Your task to perform on an android device: Go to Google Image 0: 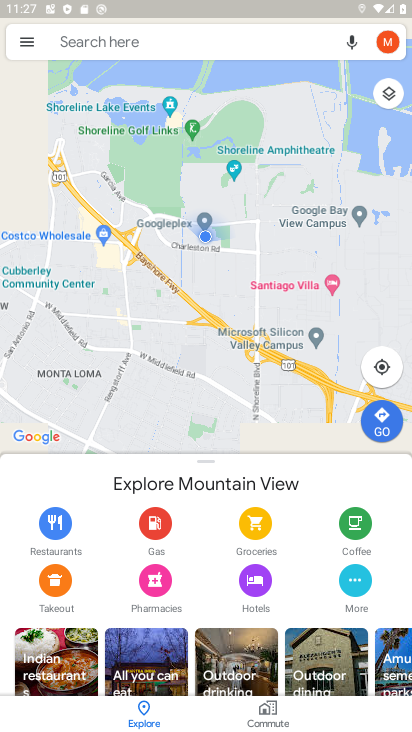
Step 0: press home button
Your task to perform on an android device: Go to Google Image 1: 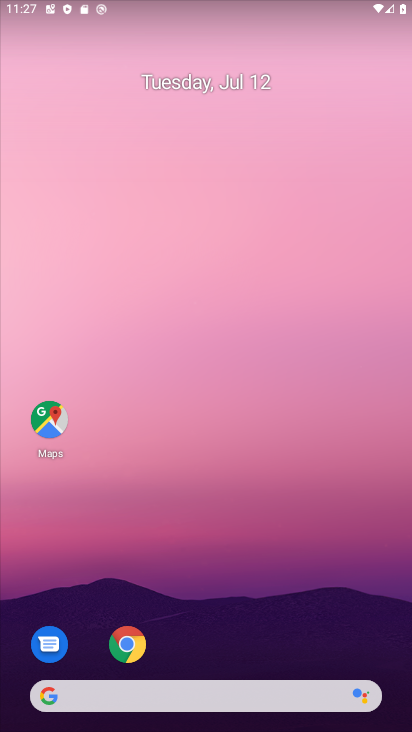
Step 1: drag from (203, 725) to (263, 27)
Your task to perform on an android device: Go to Google Image 2: 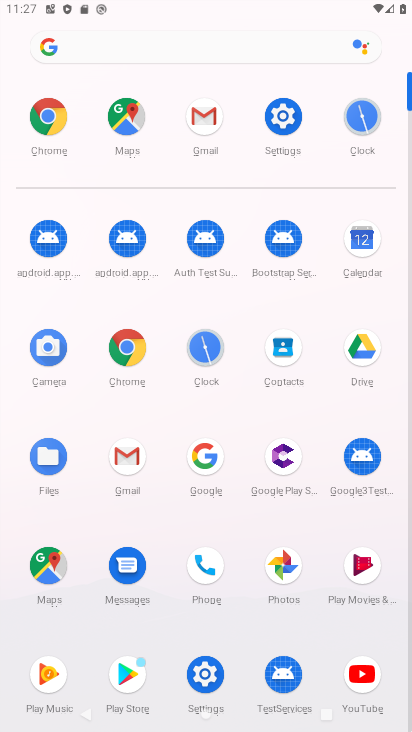
Step 2: click (195, 471)
Your task to perform on an android device: Go to Google Image 3: 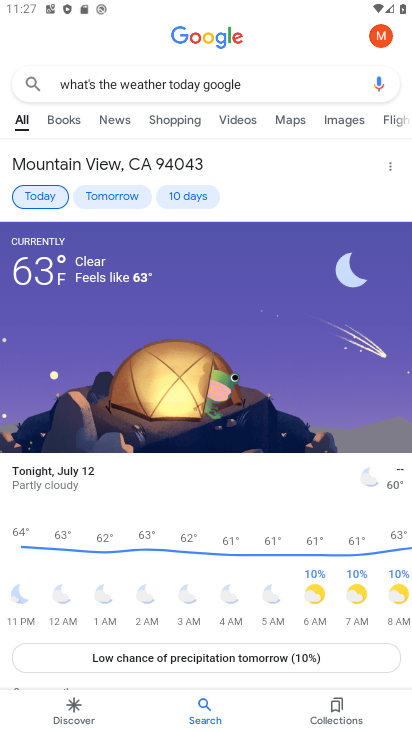
Step 3: task complete